Your task to perform on an android device: read, delete, or share a saved page in the chrome app Image 0: 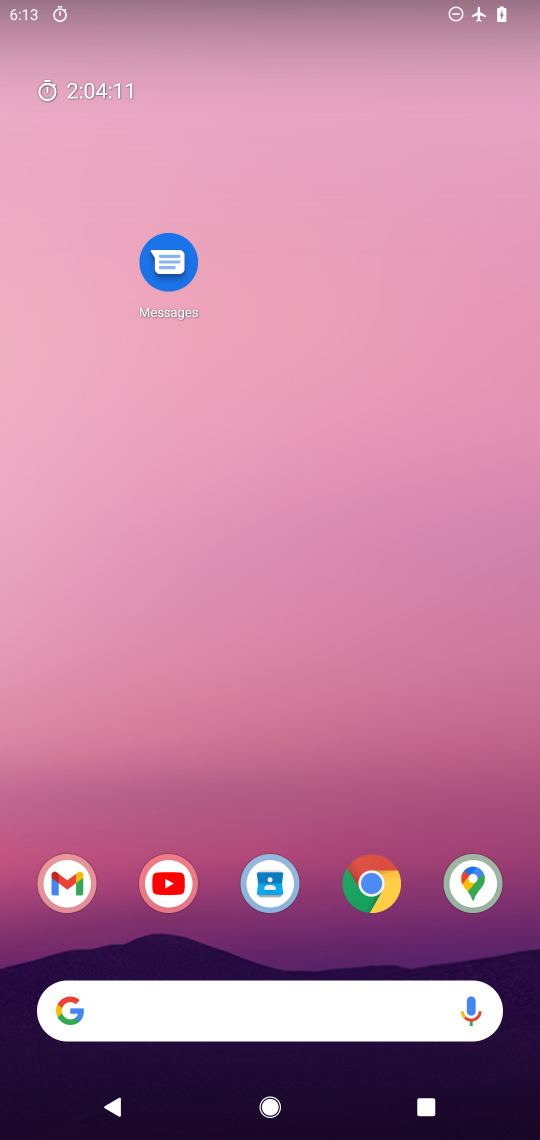
Step 0: drag from (323, 965) to (421, 129)
Your task to perform on an android device: read, delete, or share a saved page in the chrome app Image 1: 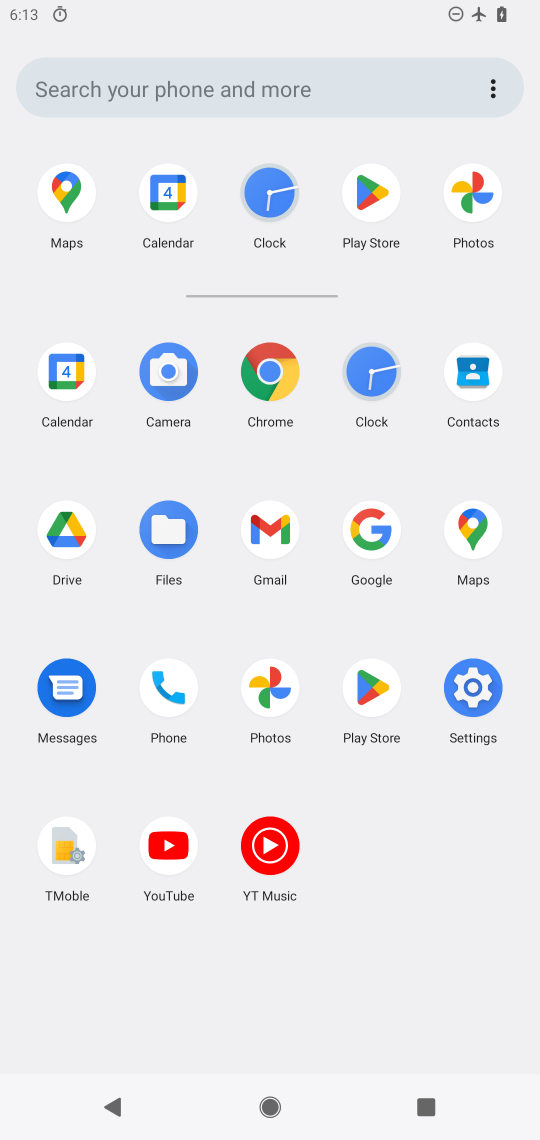
Step 1: click (272, 373)
Your task to perform on an android device: read, delete, or share a saved page in the chrome app Image 2: 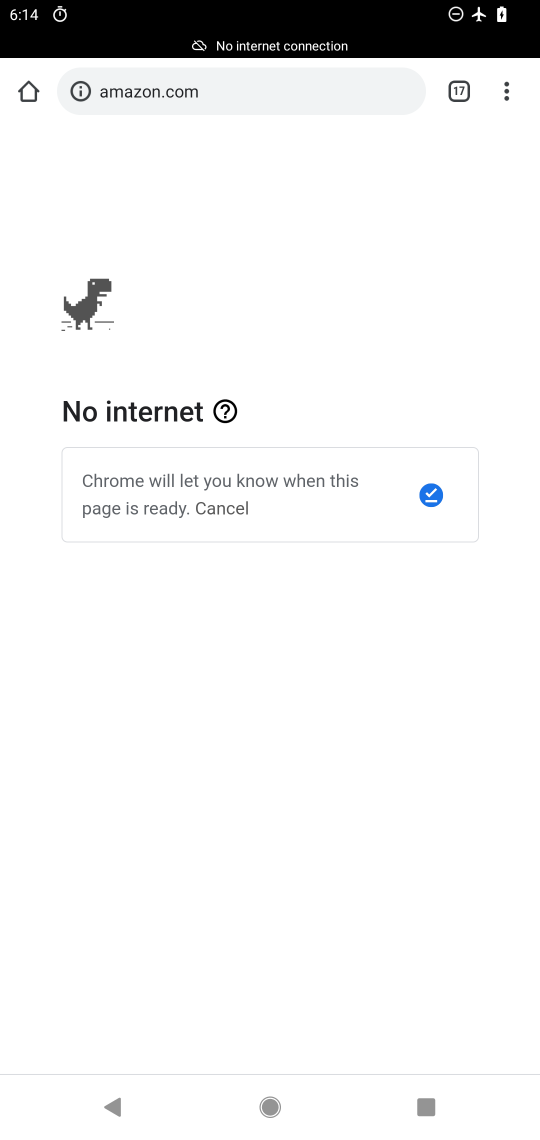
Step 2: click (508, 95)
Your task to perform on an android device: read, delete, or share a saved page in the chrome app Image 3: 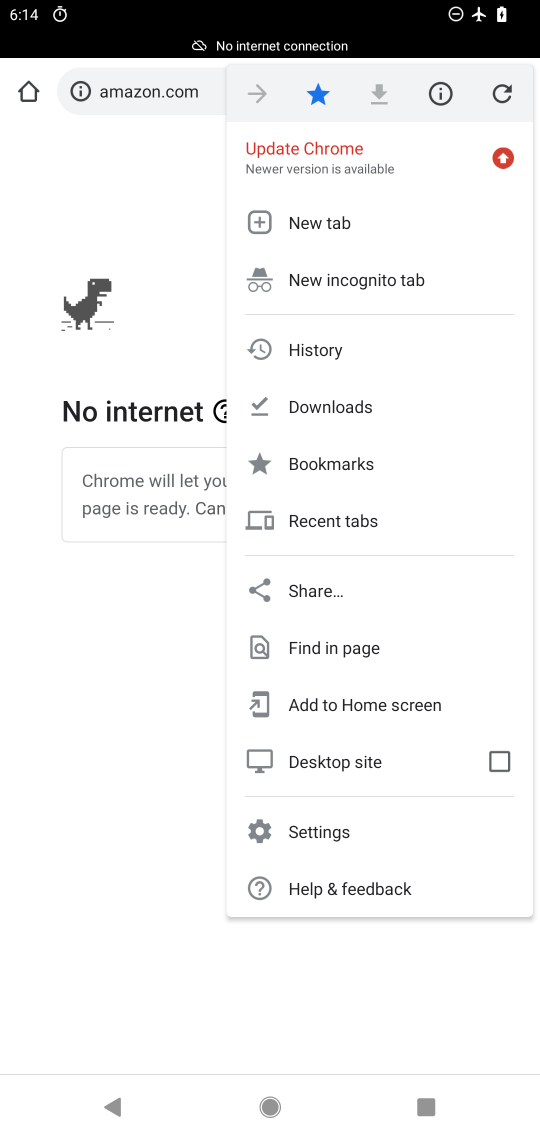
Step 3: click (326, 414)
Your task to perform on an android device: read, delete, or share a saved page in the chrome app Image 4: 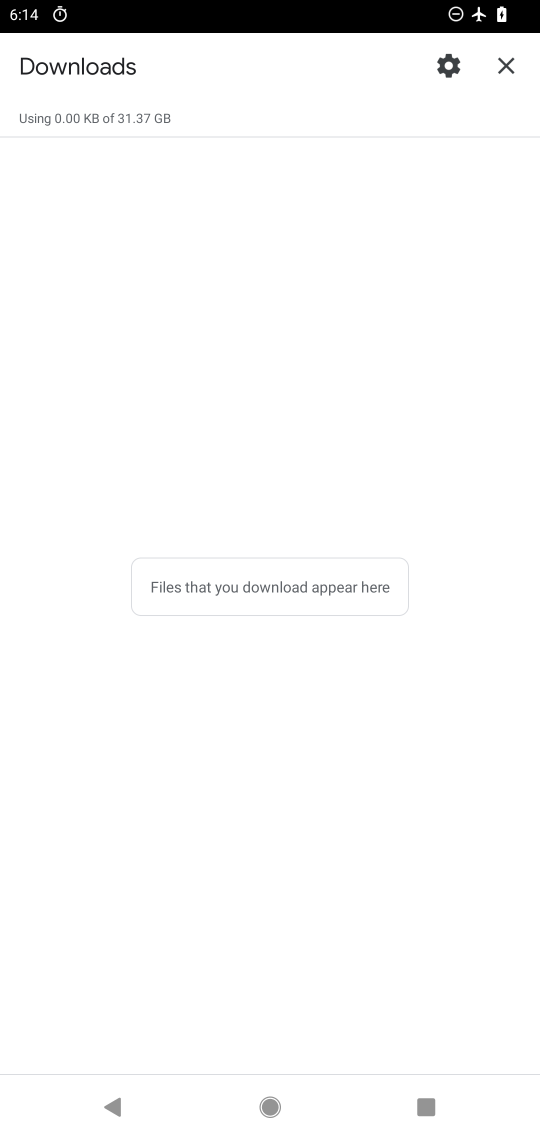
Step 4: task complete